Your task to perform on an android device: set default search engine in the chrome app Image 0: 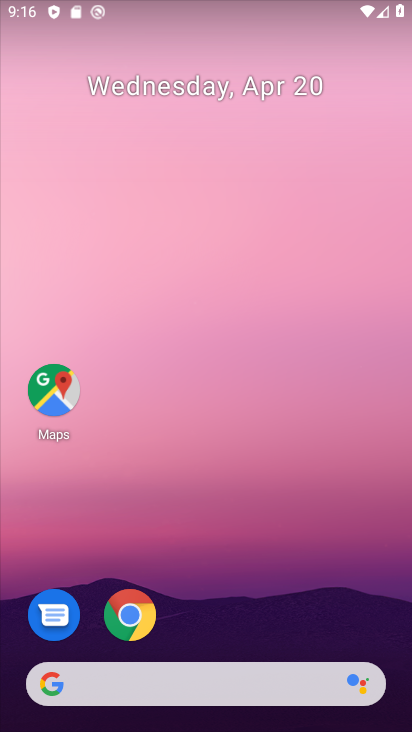
Step 0: click (125, 616)
Your task to perform on an android device: set default search engine in the chrome app Image 1: 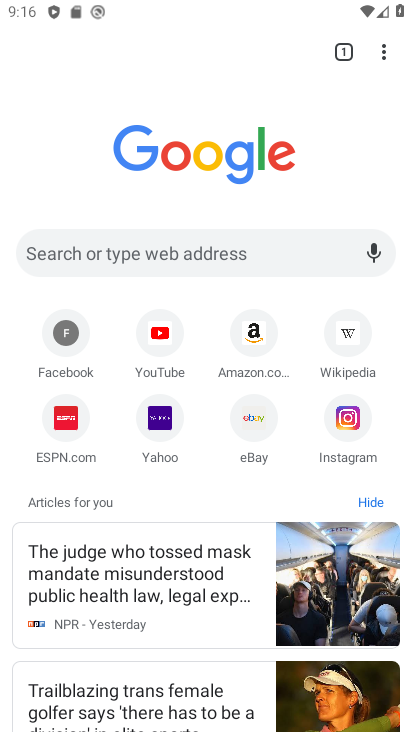
Step 1: click (386, 51)
Your task to perform on an android device: set default search engine in the chrome app Image 2: 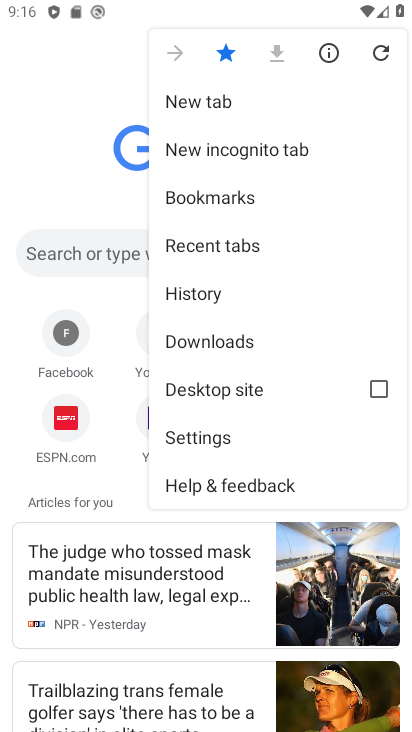
Step 2: click (202, 439)
Your task to perform on an android device: set default search engine in the chrome app Image 3: 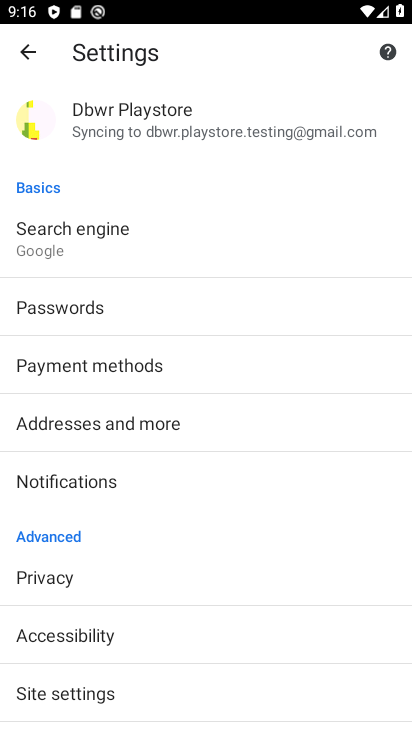
Step 3: click (41, 225)
Your task to perform on an android device: set default search engine in the chrome app Image 4: 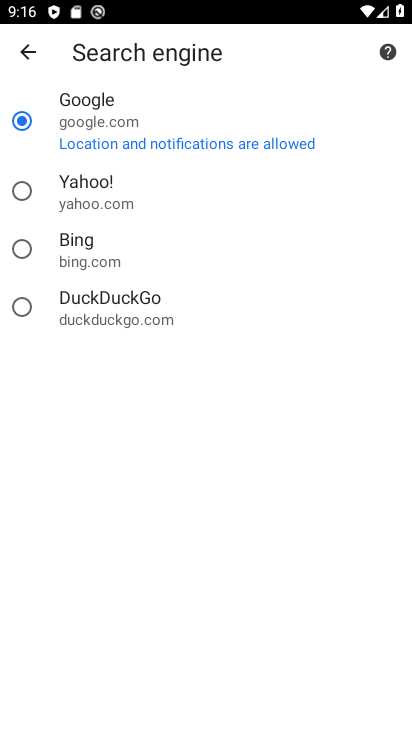
Step 4: click (20, 196)
Your task to perform on an android device: set default search engine in the chrome app Image 5: 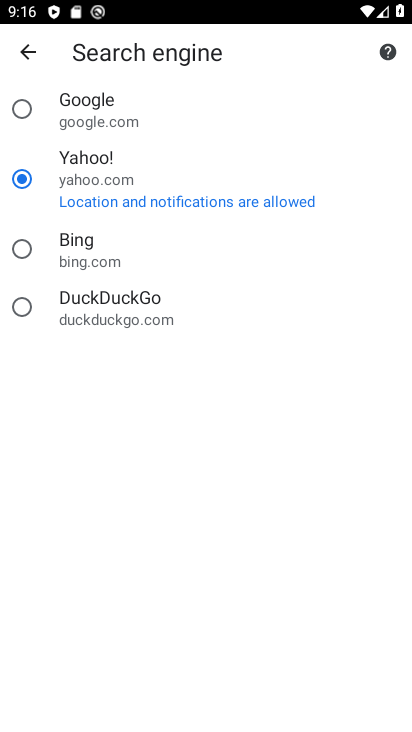
Step 5: task complete